Your task to perform on an android device: Search for Italian restaurants on Maps Image 0: 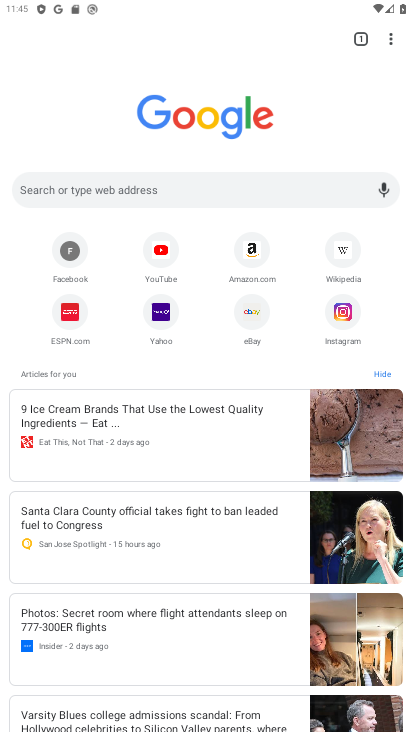
Step 0: press home button
Your task to perform on an android device: Search for Italian restaurants on Maps Image 1: 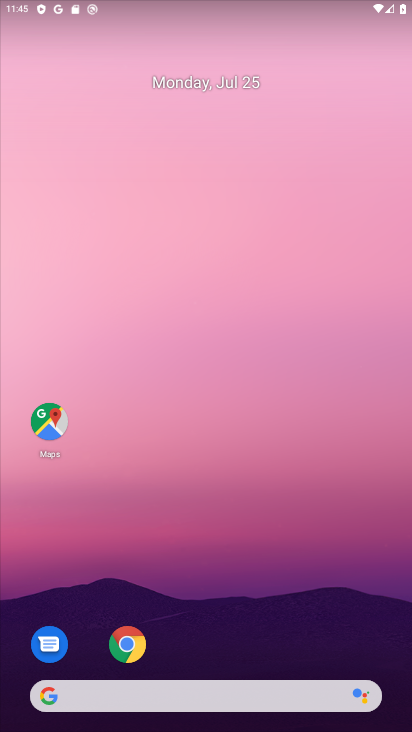
Step 1: click (47, 422)
Your task to perform on an android device: Search for Italian restaurants on Maps Image 2: 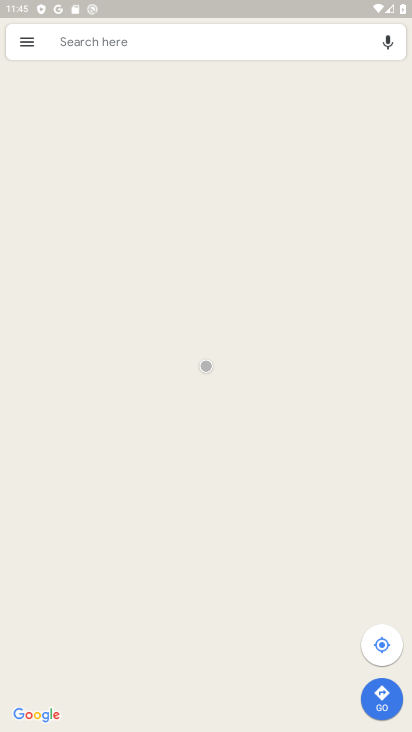
Step 2: click (64, 43)
Your task to perform on an android device: Search for Italian restaurants on Maps Image 3: 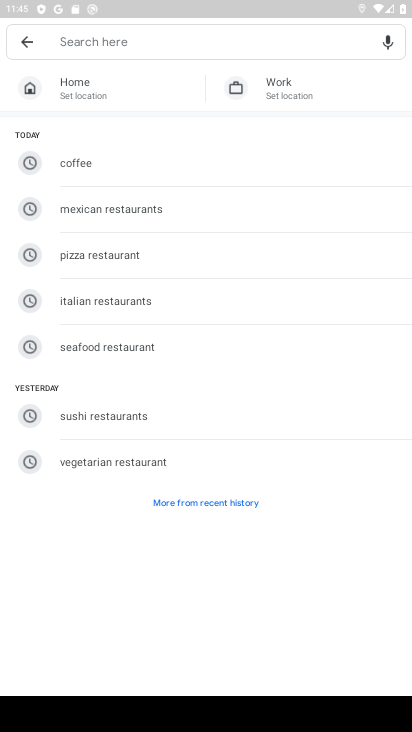
Step 3: type "Italian restaurants"
Your task to perform on an android device: Search for Italian restaurants on Maps Image 4: 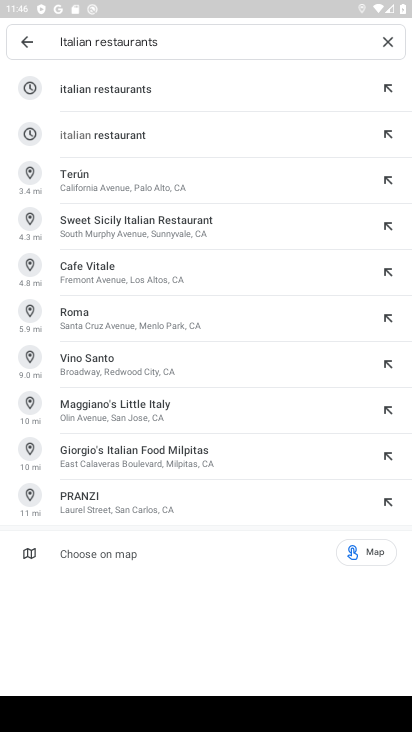
Step 4: click (111, 94)
Your task to perform on an android device: Search for Italian restaurants on Maps Image 5: 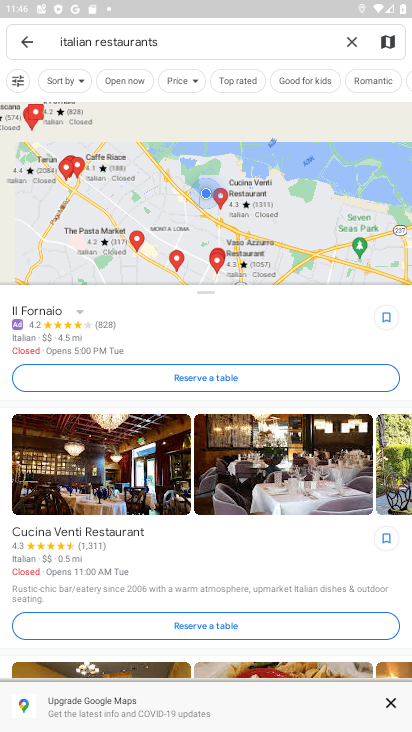
Step 5: task complete